Your task to perform on an android device: turn off notifications settings in the gmail app Image 0: 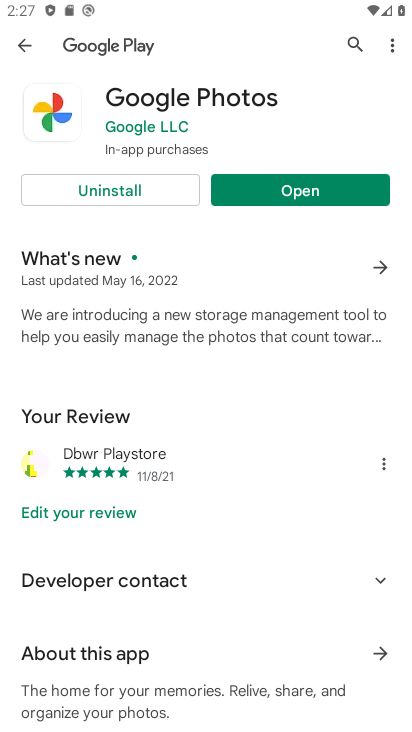
Step 0: drag from (207, 652) to (257, 306)
Your task to perform on an android device: turn off notifications settings in the gmail app Image 1: 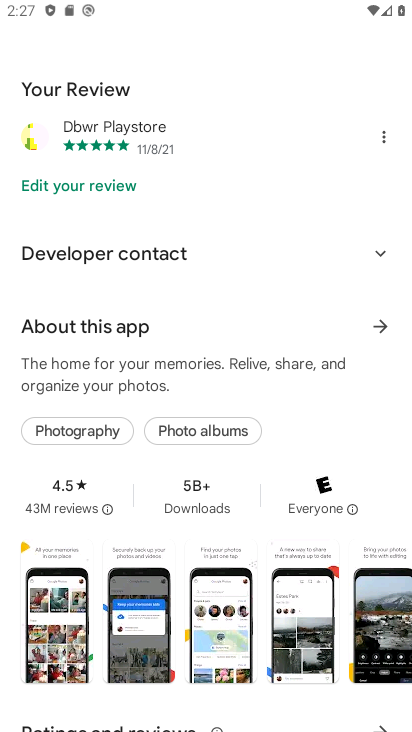
Step 1: press home button
Your task to perform on an android device: turn off notifications settings in the gmail app Image 2: 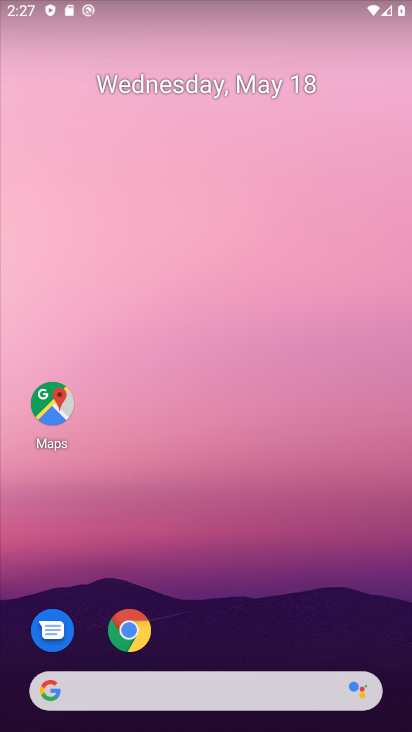
Step 2: drag from (205, 655) to (257, 161)
Your task to perform on an android device: turn off notifications settings in the gmail app Image 3: 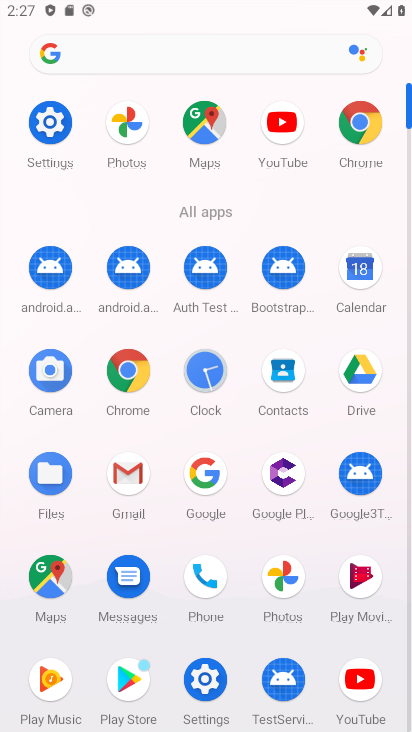
Step 3: click (126, 466)
Your task to perform on an android device: turn off notifications settings in the gmail app Image 4: 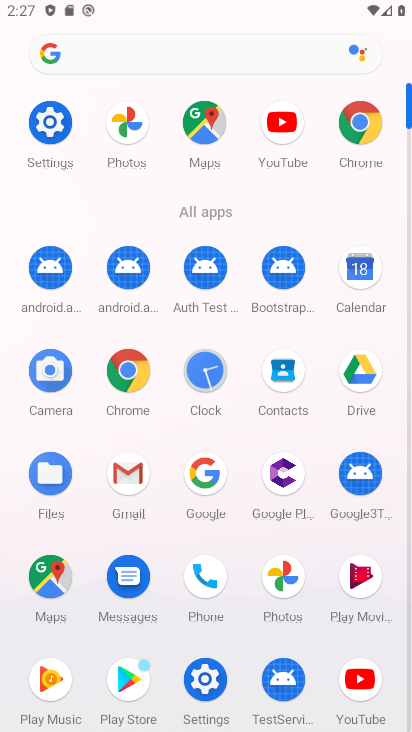
Step 4: click (126, 466)
Your task to perform on an android device: turn off notifications settings in the gmail app Image 5: 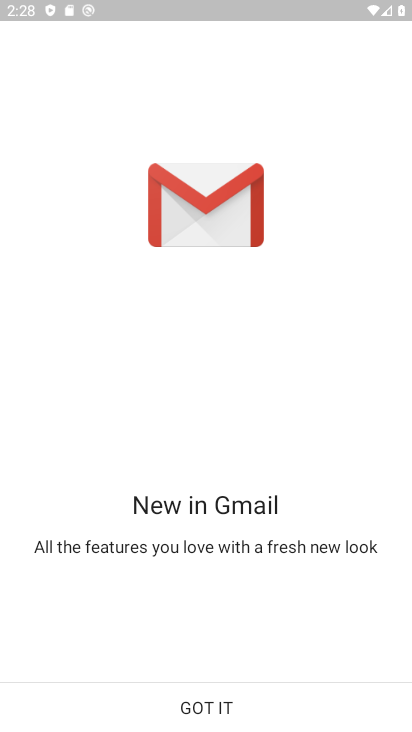
Step 5: click (216, 697)
Your task to perform on an android device: turn off notifications settings in the gmail app Image 6: 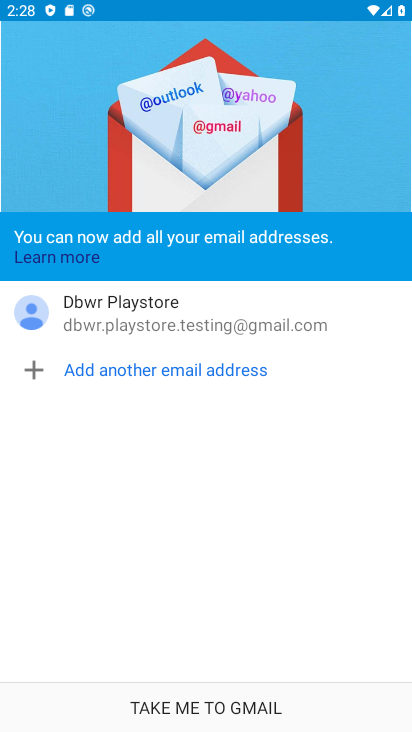
Step 6: click (201, 718)
Your task to perform on an android device: turn off notifications settings in the gmail app Image 7: 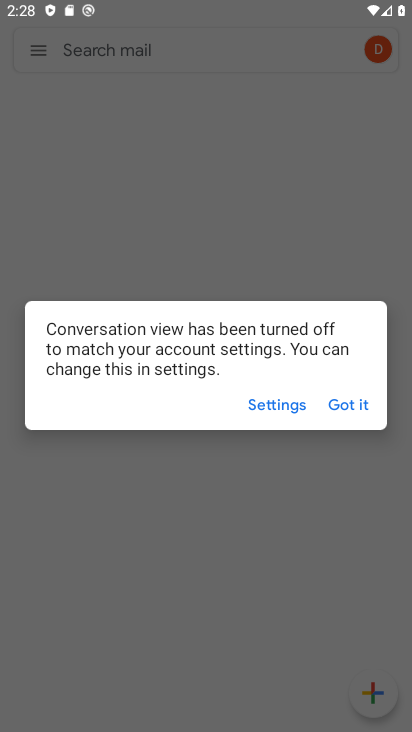
Step 7: click (359, 409)
Your task to perform on an android device: turn off notifications settings in the gmail app Image 8: 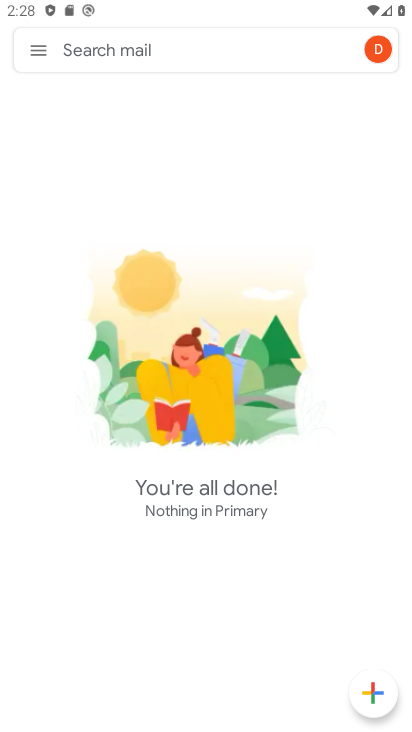
Step 8: click (33, 46)
Your task to perform on an android device: turn off notifications settings in the gmail app Image 9: 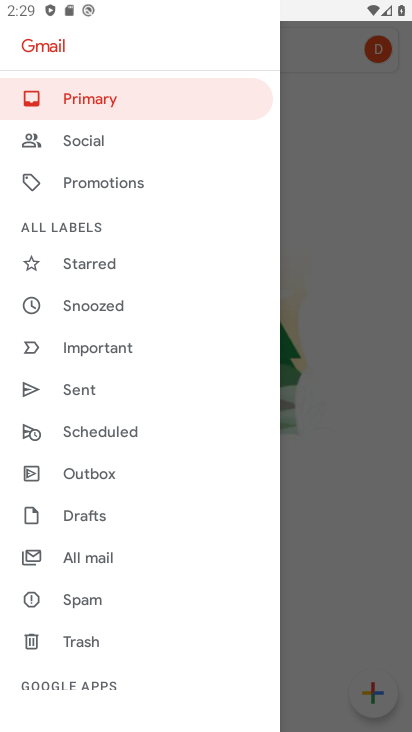
Step 9: drag from (123, 652) to (176, 174)
Your task to perform on an android device: turn off notifications settings in the gmail app Image 10: 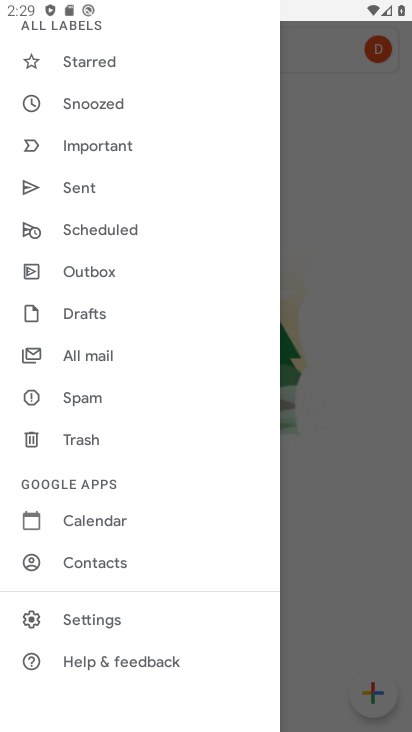
Step 10: click (128, 619)
Your task to perform on an android device: turn off notifications settings in the gmail app Image 11: 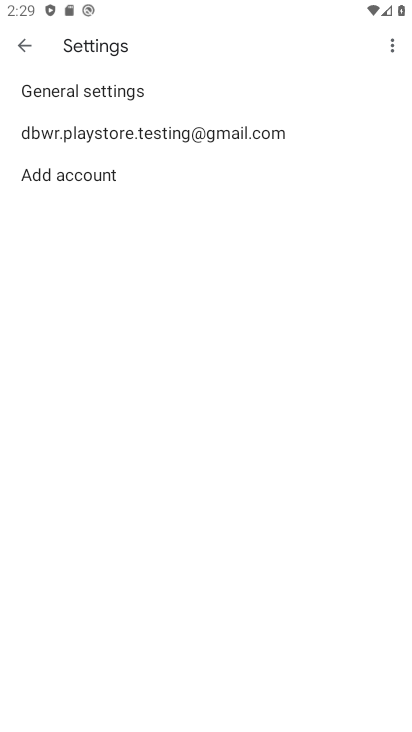
Step 11: click (163, 86)
Your task to perform on an android device: turn off notifications settings in the gmail app Image 12: 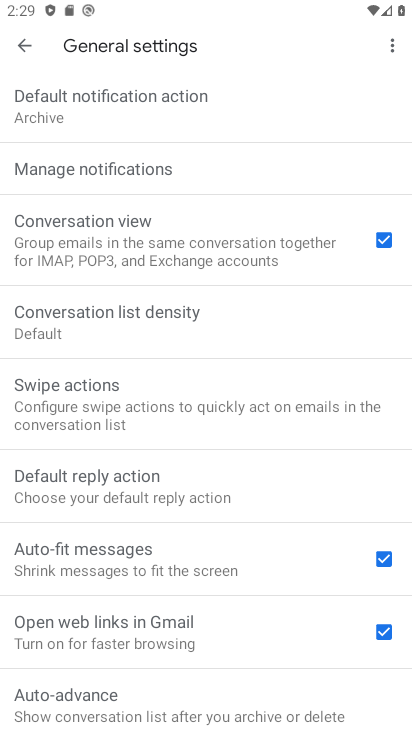
Step 12: click (200, 164)
Your task to perform on an android device: turn off notifications settings in the gmail app Image 13: 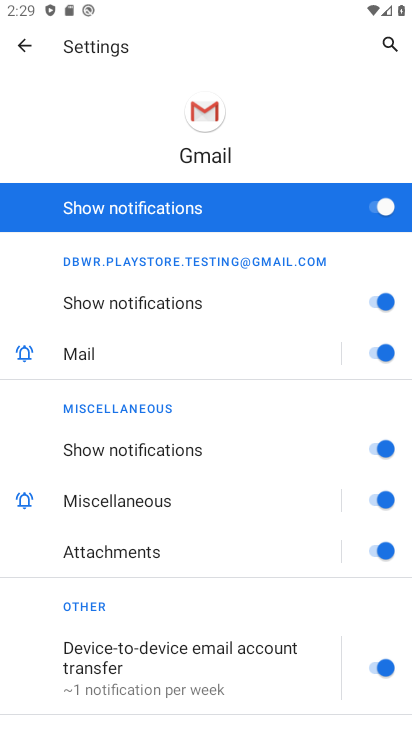
Step 13: task complete